Your task to perform on an android device: Open the map Image 0: 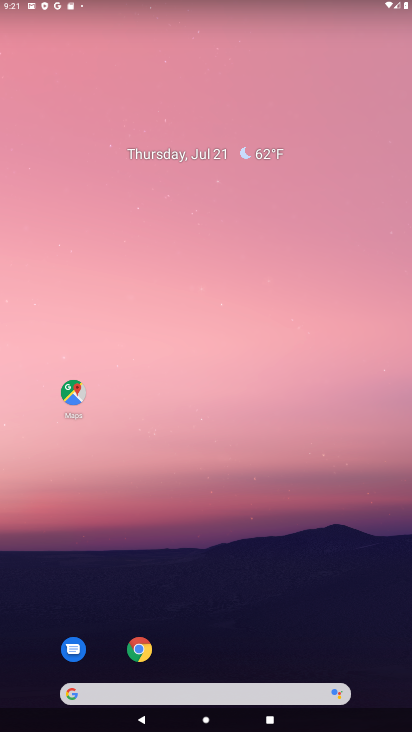
Step 0: click (71, 392)
Your task to perform on an android device: Open the map Image 1: 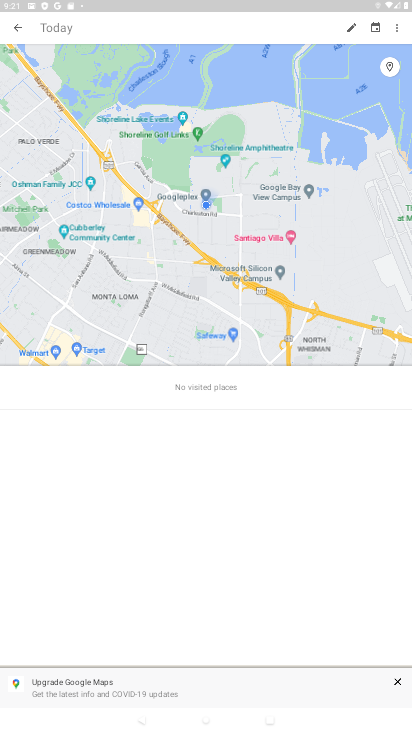
Step 1: task complete